Your task to perform on an android device: turn off sleep mode Image 0: 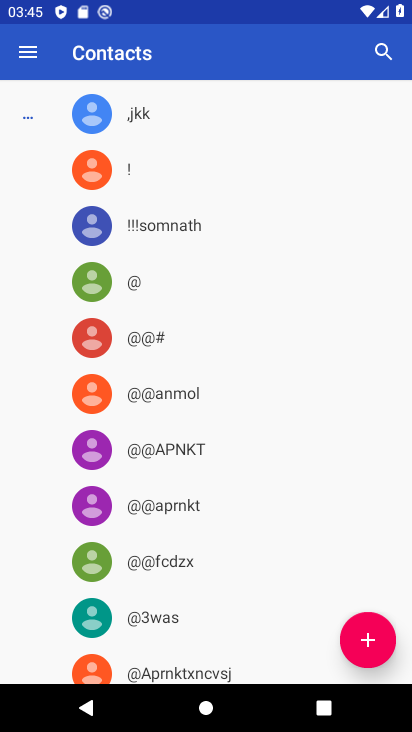
Step 0: press back button
Your task to perform on an android device: turn off sleep mode Image 1: 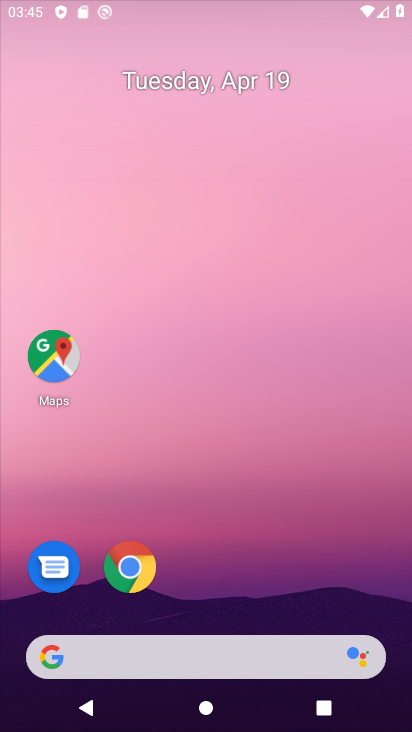
Step 1: drag from (274, 169) to (332, 0)
Your task to perform on an android device: turn off sleep mode Image 2: 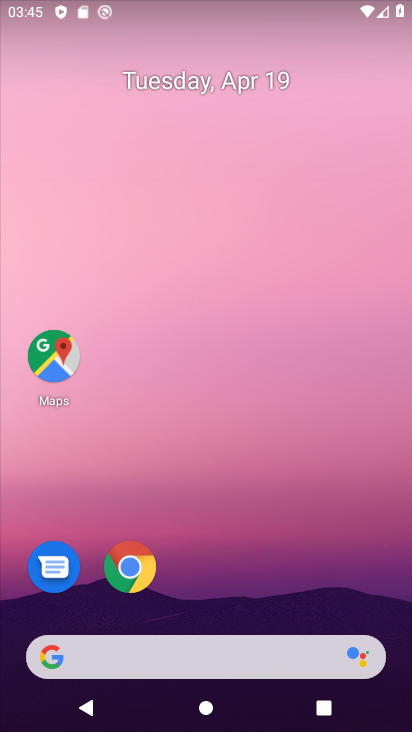
Step 2: drag from (245, 572) to (366, 43)
Your task to perform on an android device: turn off sleep mode Image 3: 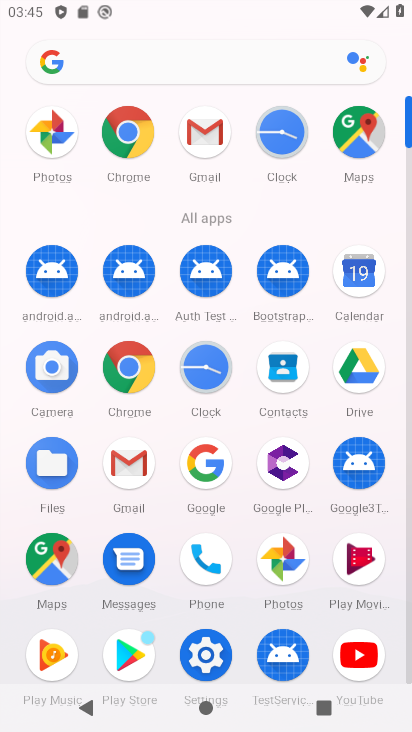
Step 3: click (207, 660)
Your task to perform on an android device: turn off sleep mode Image 4: 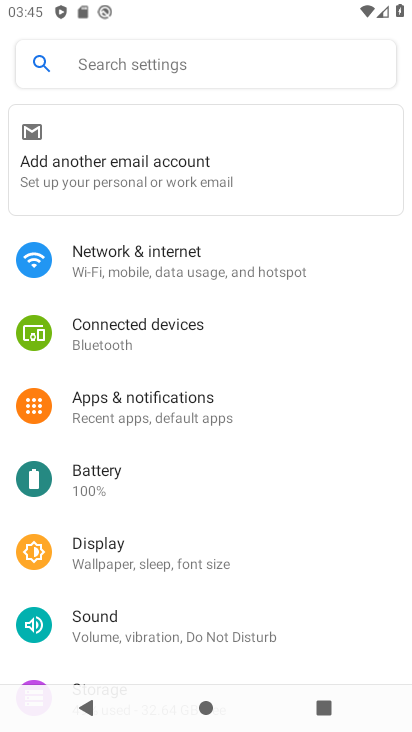
Step 4: click (178, 551)
Your task to perform on an android device: turn off sleep mode Image 5: 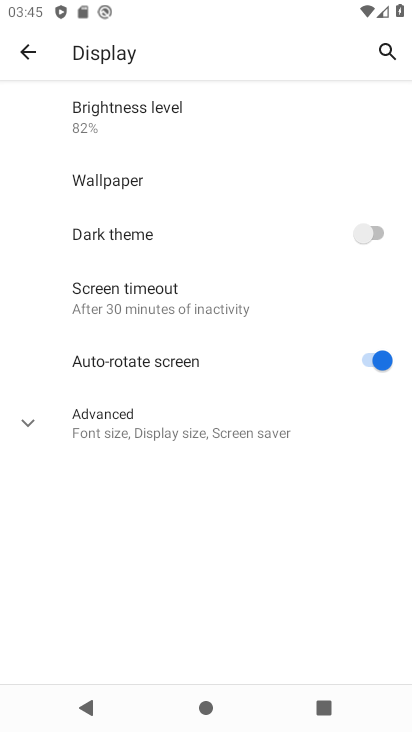
Step 5: task complete